Your task to perform on an android device: Open display settings Image 0: 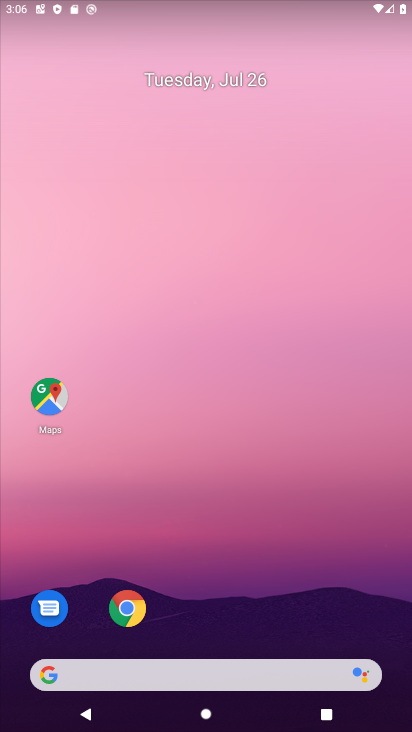
Step 0: drag from (259, 522) to (255, 133)
Your task to perform on an android device: Open display settings Image 1: 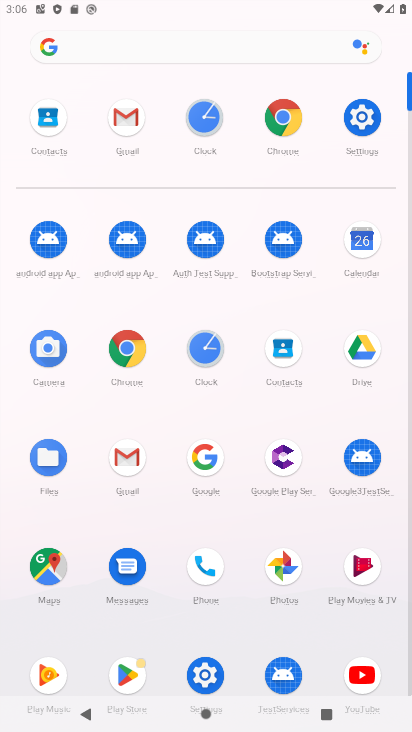
Step 1: click (361, 125)
Your task to perform on an android device: Open display settings Image 2: 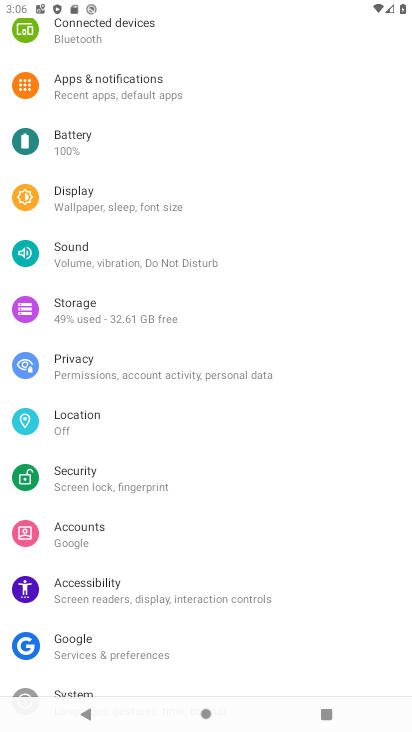
Step 2: click (106, 199)
Your task to perform on an android device: Open display settings Image 3: 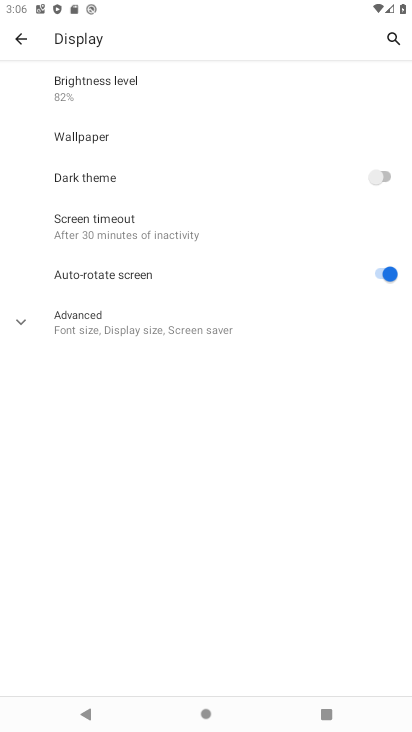
Step 3: task complete